Your task to perform on an android device: empty trash in google photos Image 0: 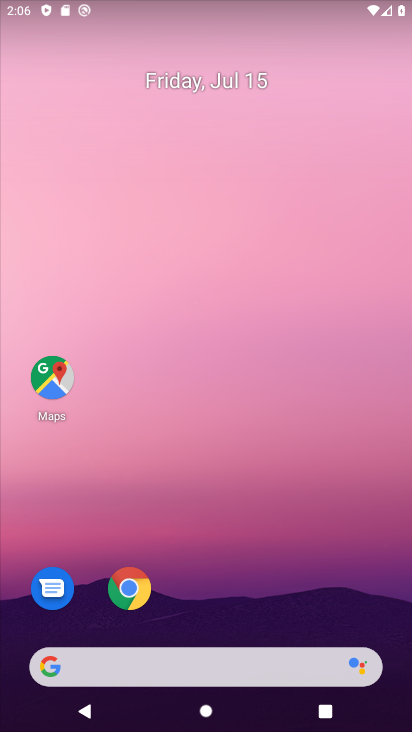
Step 0: drag from (234, 603) to (218, 0)
Your task to perform on an android device: empty trash in google photos Image 1: 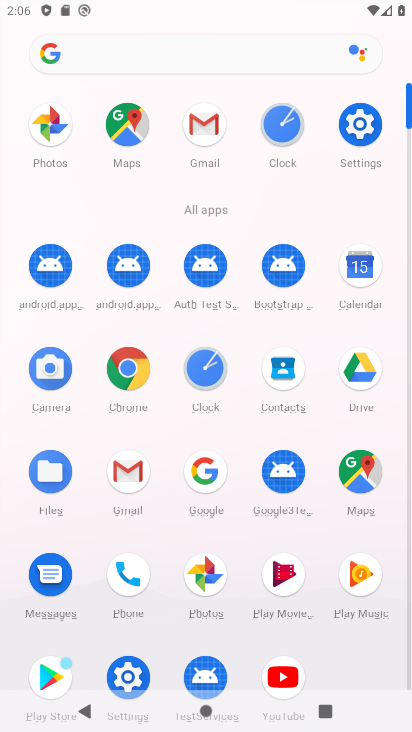
Step 1: click (212, 556)
Your task to perform on an android device: empty trash in google photos Image 2: 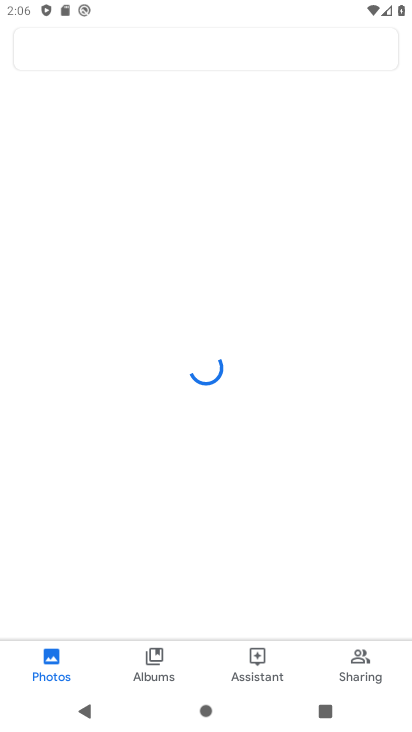
Step 2: click (212, 556)
Your task to perform on an android device: empty trash in google photos Image 3: 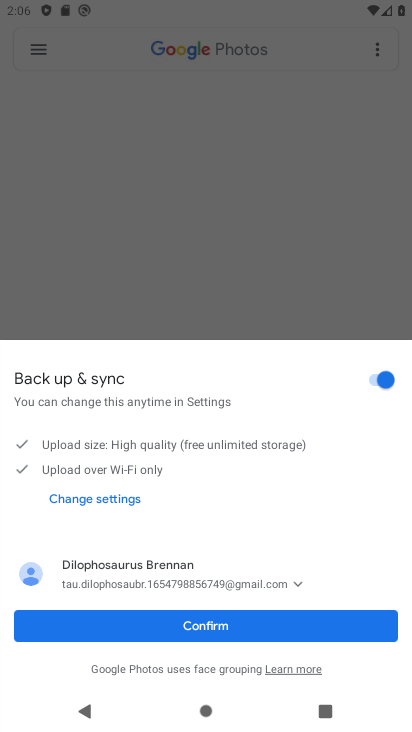
Step 3: click (184, 630)
Your task to perform on an android device: empty trash in google photos Image 4: 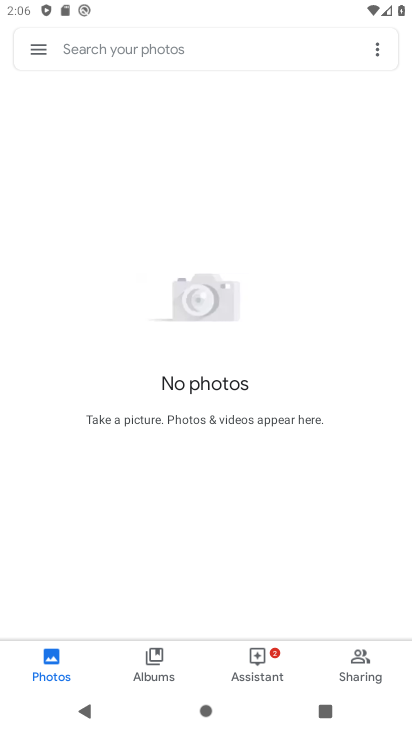
Step 4: click (37, 53)
Your task to perform on an android device: empty trash in google photos Image 5: 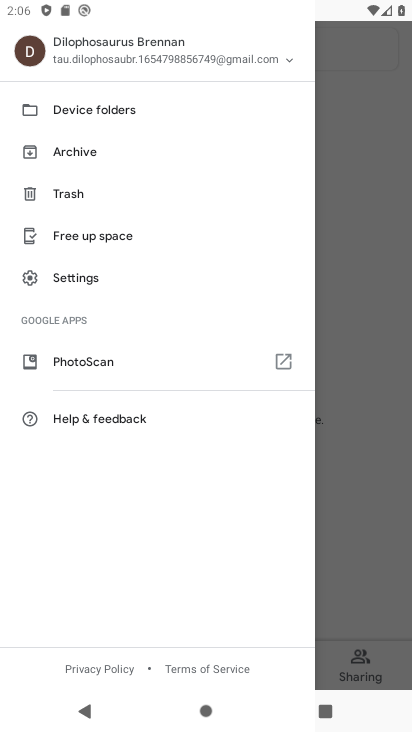
Step 5: click (74, 196)
Your task to perform on an android device: empty trash in google photos Image 6: 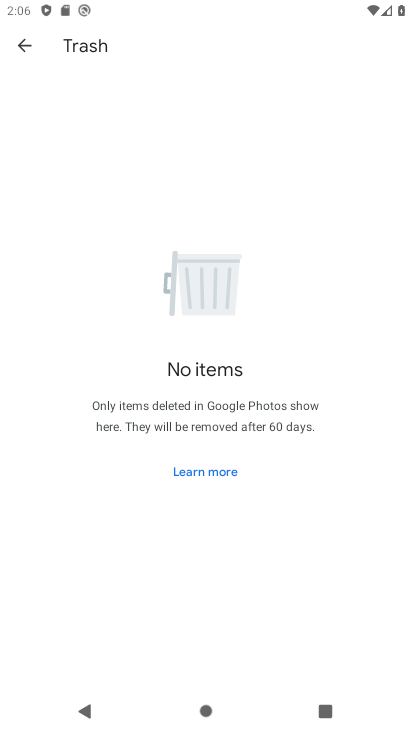
Step 6: task complete